Your task to perform on an android device: turn vacation reply on in the gmail app Image 0: 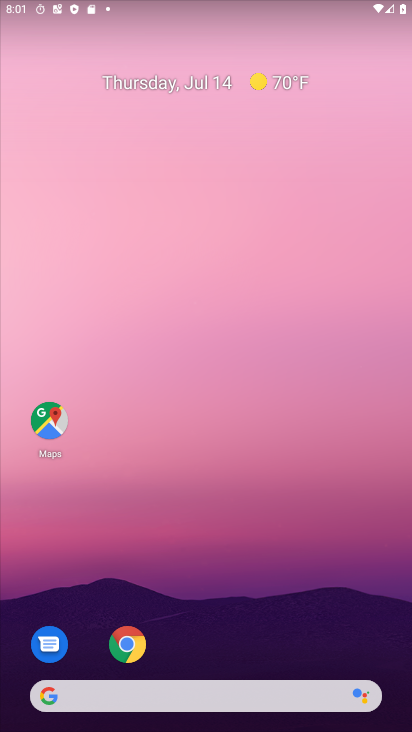
Step 0: drag from (208, 702) to (299, 261)
Your task to perform on an android device: turn vacation reply on in the gmail app Image 1: 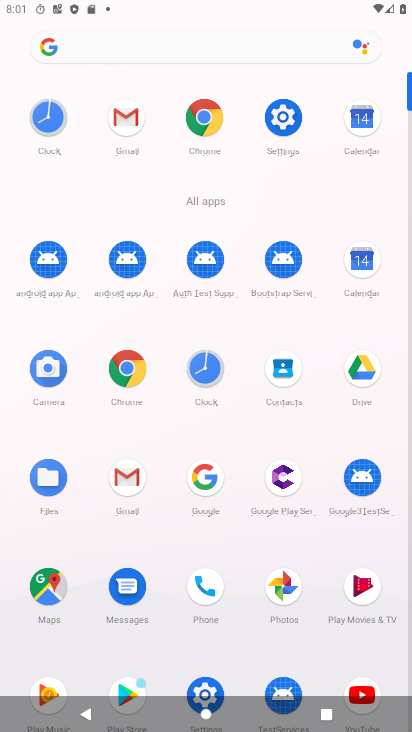
Step 1: click (130, 122)
Your task to perform on an android device: turn vacation reply on in the gmail app Image 2: 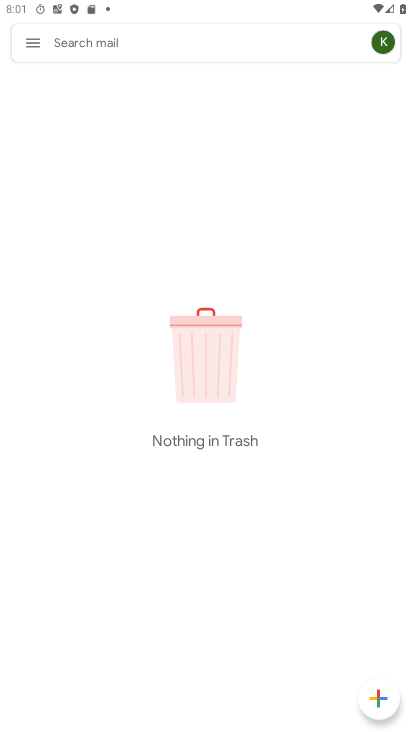
Step 2: click (38, 45)
Your task to perform on an android device: turn vacation reply on in the gmail app Image 3: 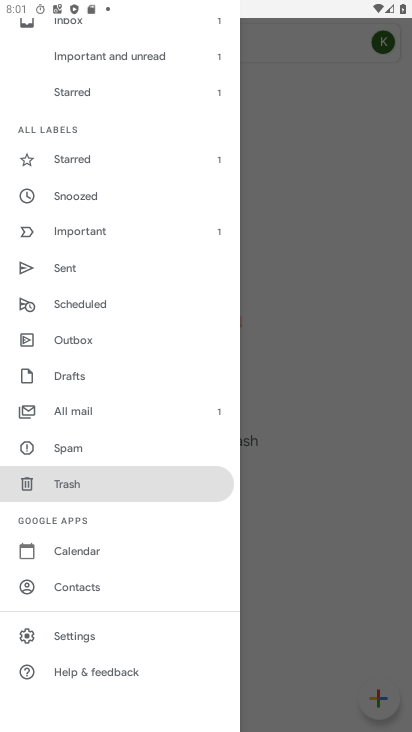
Step 3: click (95, 637)
Your task to perform on an android device: turn vacation reply on in the gmail app Image 4: 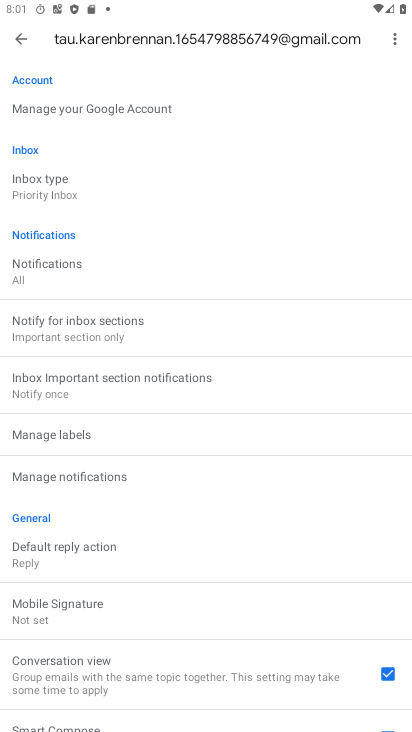
Step 4: drag from (192, 596) to (261, 97)
Your task to perform on an android device: turn vacation reply on in the gmail app Image 5: 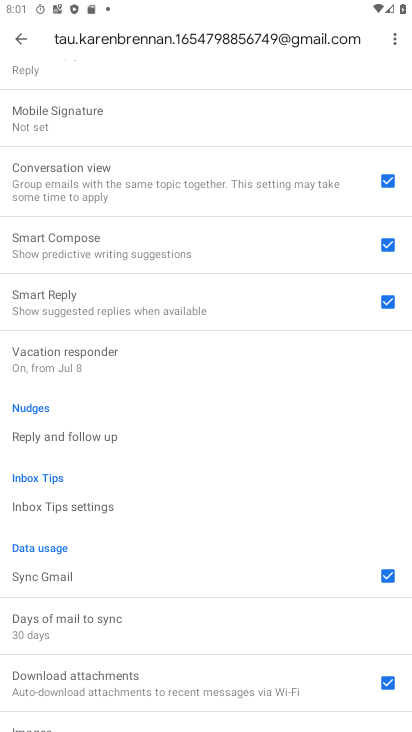
Step 5: click (69, 358)
Your task to perform on an android device: turn vacation reply on in the gmail app Image 6: 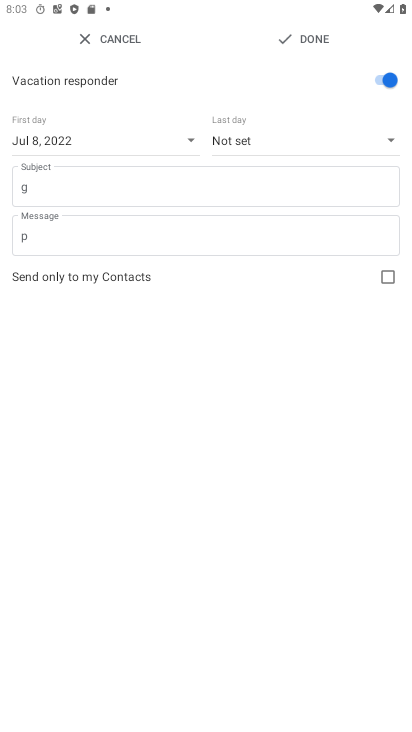
Step 6: task complete